Your task to perform on an android device: open sync settings in chrome Image 0: 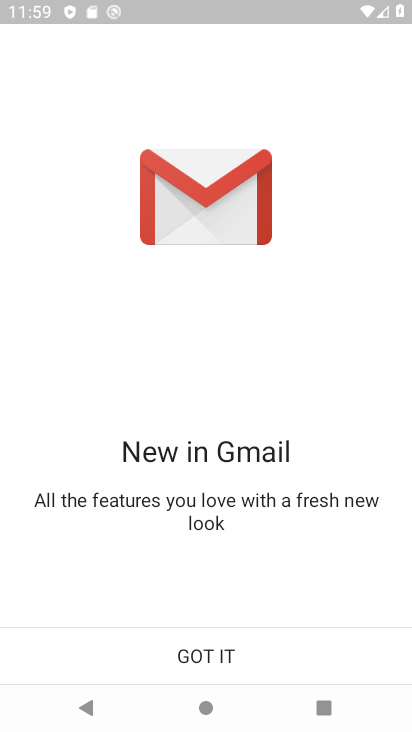
Step 0: press home button
Your task to perform on an android device: open sync settings in chrome Image 1: 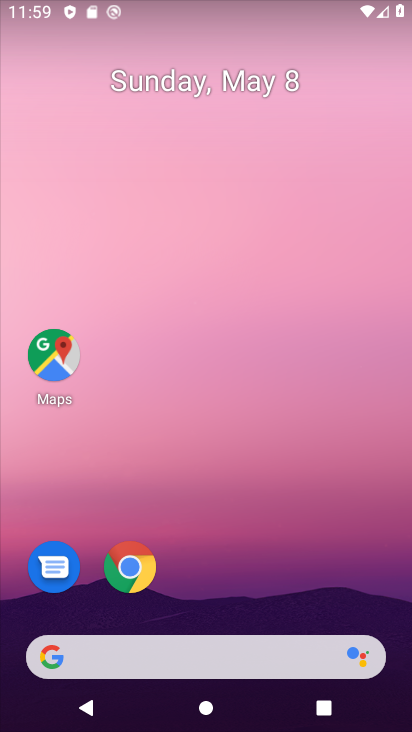
Step 1: click (135, 559)
Your task to perform on an android device: open sync settings in chrome Image 2: 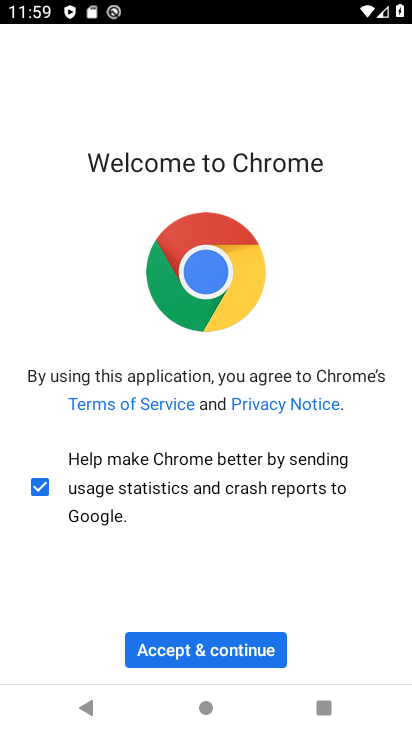
Step 2: click (189, 647)
Your task to perform on an android device: open sync settings in chrome Image 3: 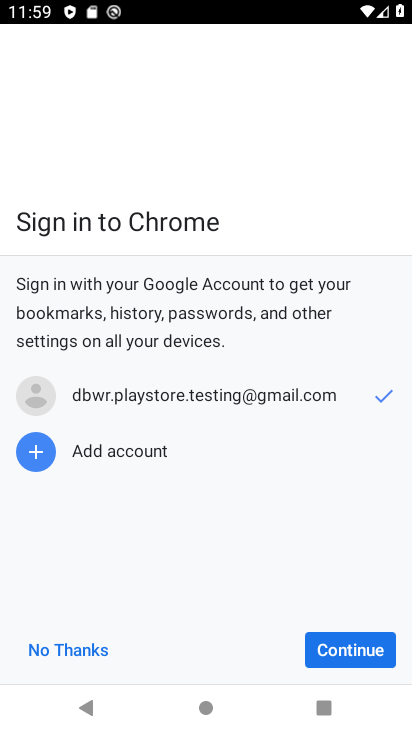
Step 3: click (367, 645)
Your task to perform on an android device: open sync settings in chrome Image 4: 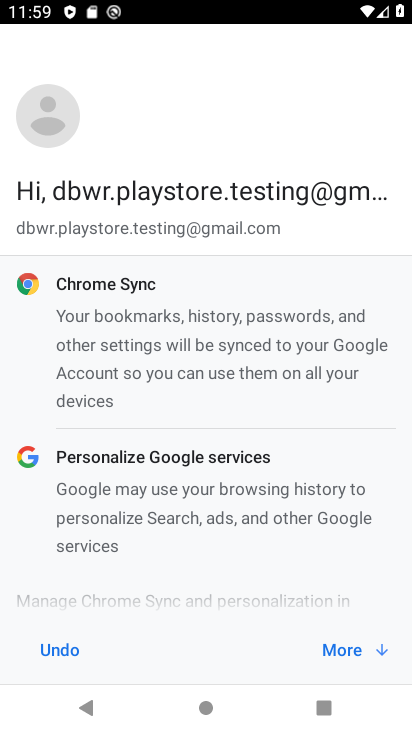
Step 4: click (341, 647)
Your task to perform on an android device: open sync settings in chrome Image 5: 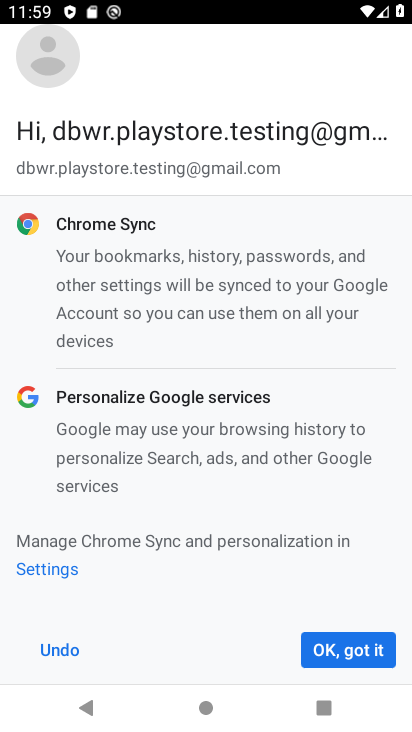
Step 5: click (341, 647)
Your task to perform on an android device: open sync settings in chrome Image 6: 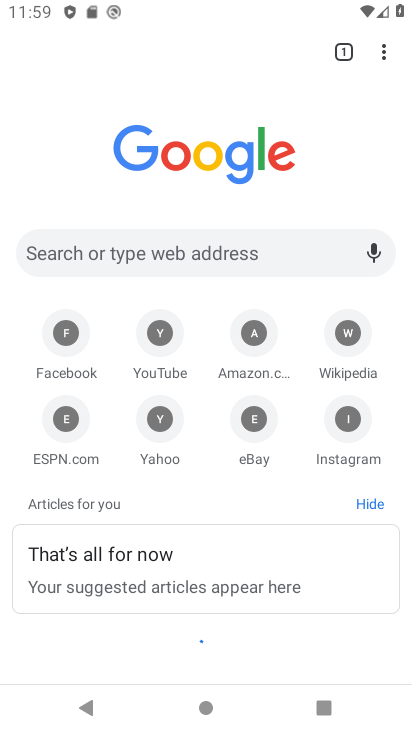
Step 6: click (383, 57)
Your task to perform on an android device: open sync settings in chrome Image 7: 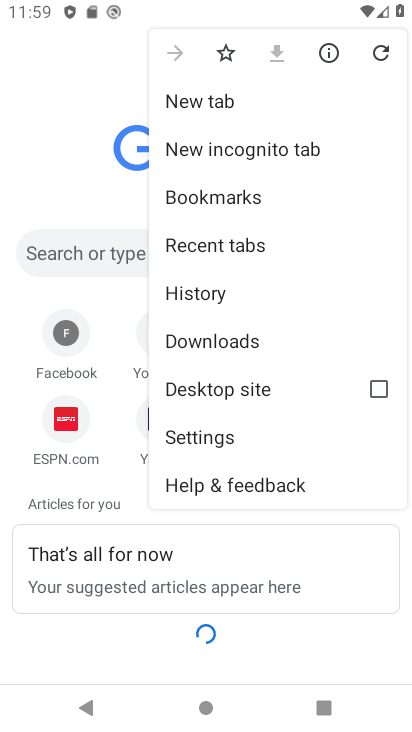
Step 7: click (213, 439)
Your task to perform on an android device: open sync settings in chrome Image 8: 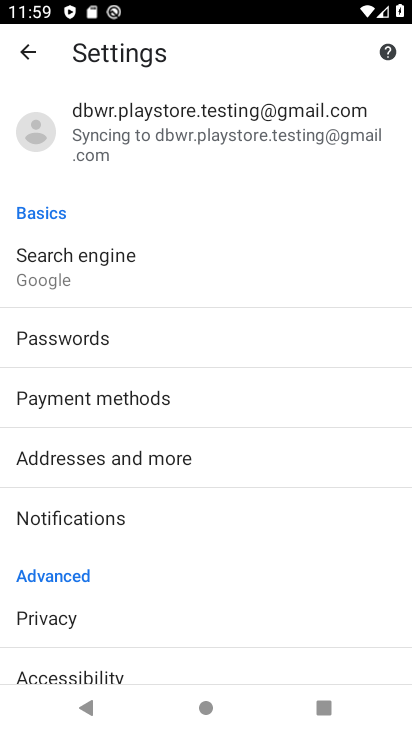
Step 8: drag from (151, 657) to (170, 289)
Your task to perform on an android device: open sync settings in chrome Image 9: 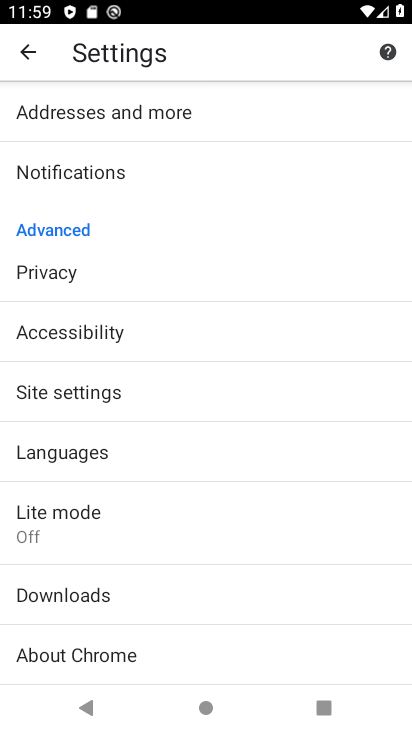
Step 9: click (66, 387)
Your task to perform on an android device: open sync settings in chrome Image 10: 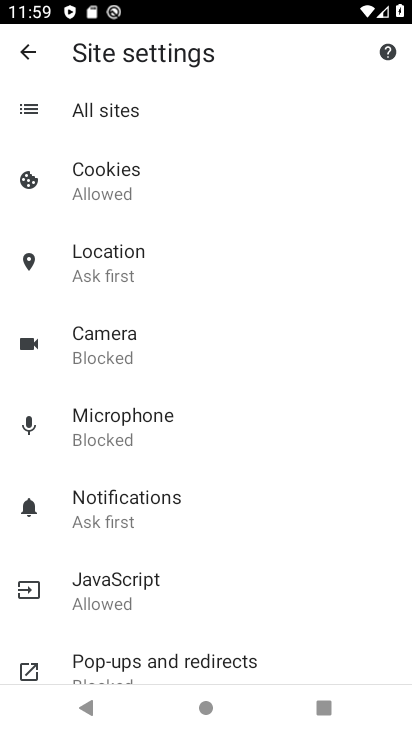
Step 10: drag from (152, 624) to (163, 371)
Your task to perform on an android device: open sync settings in chrome Image 11: 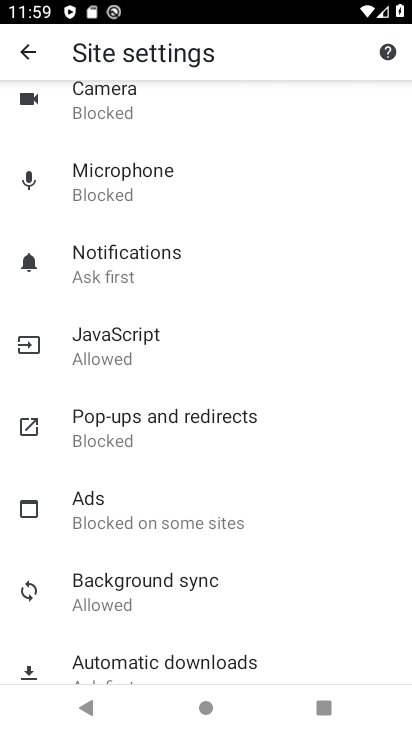
Step 11: click (155, 575)
Your task to perform on an android device: open sync settings in chrome Image 12: 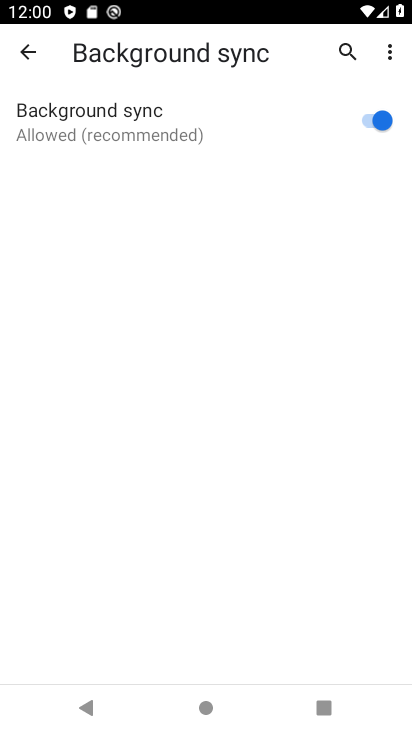
Step 12: task complete